Your task to perform on an android device: What's on my calendar today? Image 0: 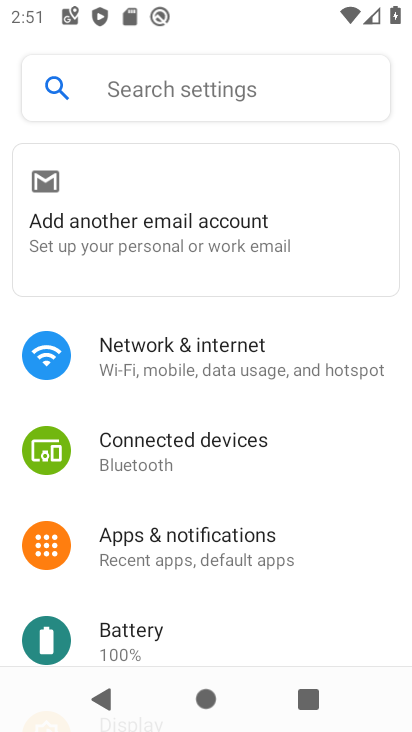
Step 0: press home button
Your task to perform on an android device: What's on my calendar today? Image 1: 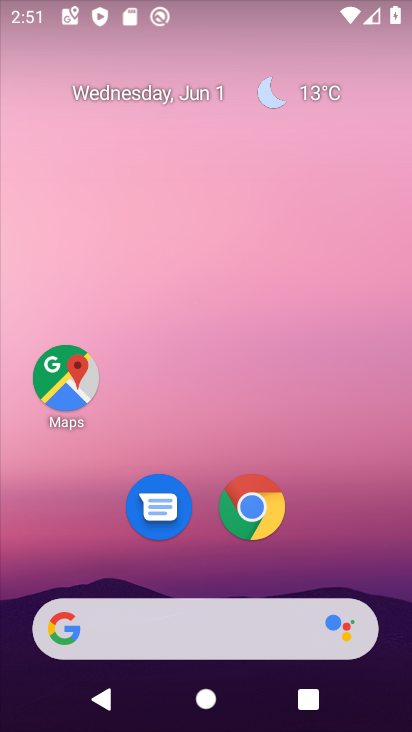
Step 1: drag from (321, 545) to (88, 124)
Your task to perform on an android device: What's on my calendar today? Image 2: 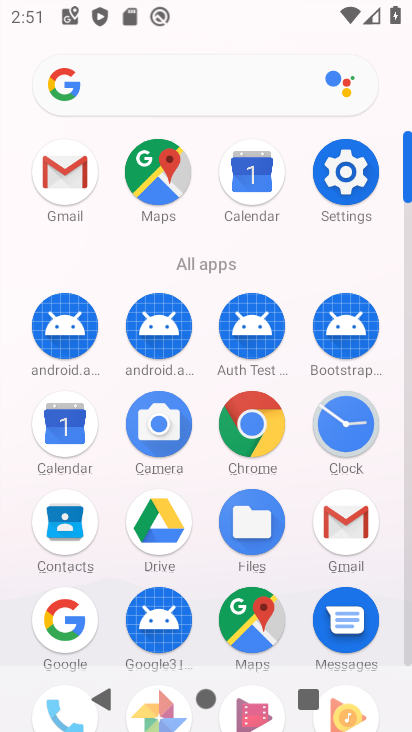
Step 2: click (252, 176)
Your task to perform on an android device: What's on my calendar today? Image 3: 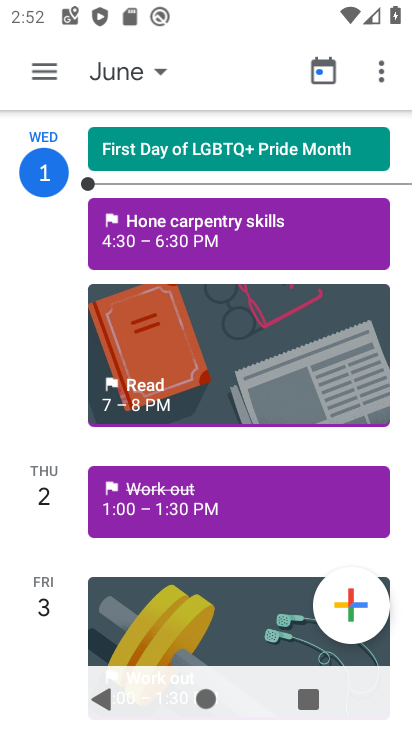
Step 3: task complete